Your task to perform on an android device: Empty the shopping cart on amazon. Image 0: 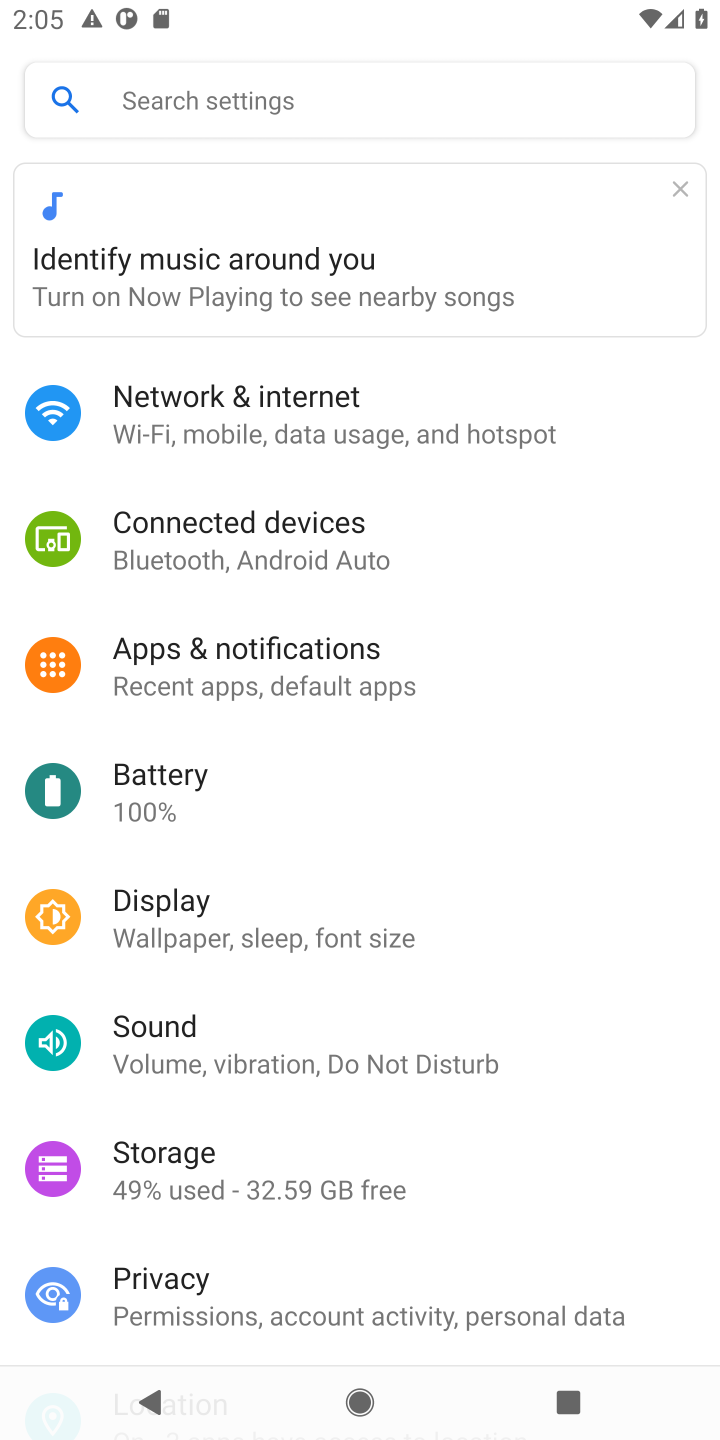
Step 0: press home button
Your task to perform on an android device: Empty the shopping cart on amazon. Image 1: 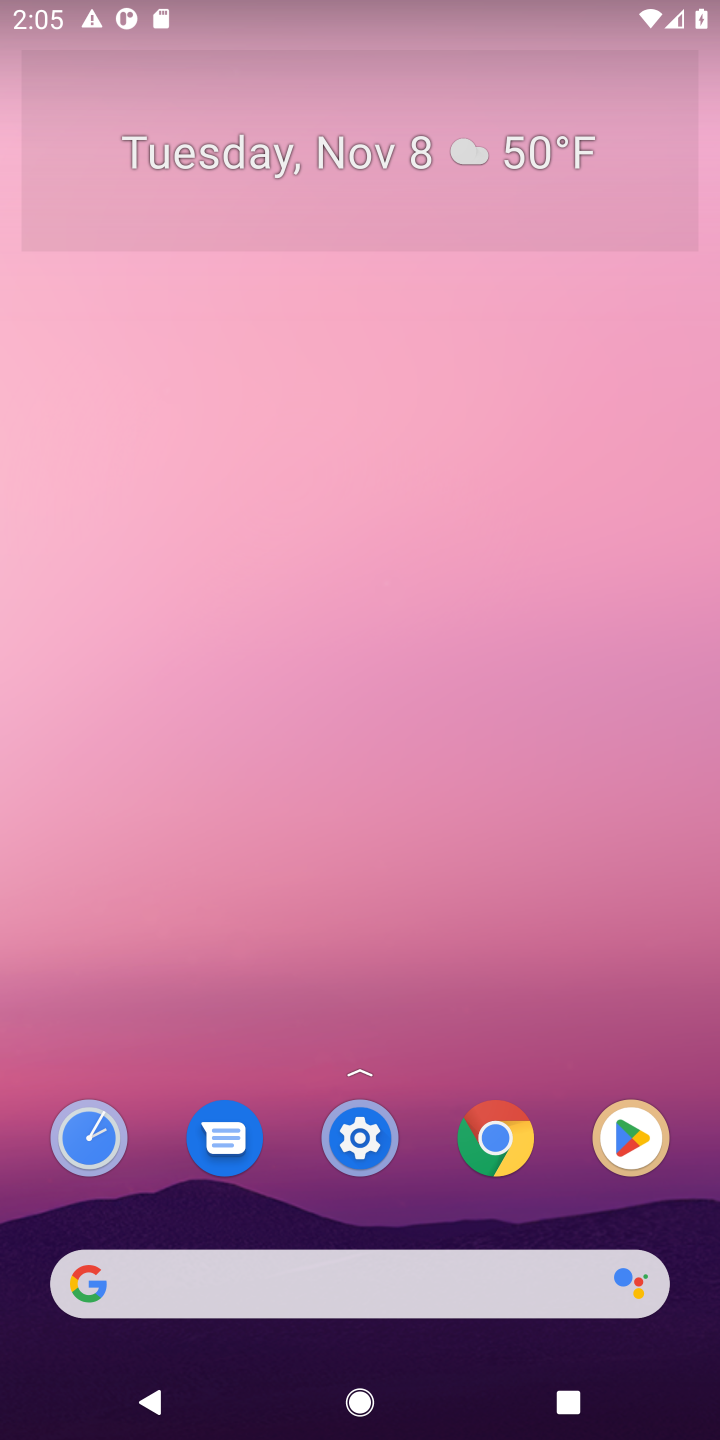
Step 1: click (290, 1274)
Your task to perform on an android device: Empty the shopping cart on amazon. Image 2: 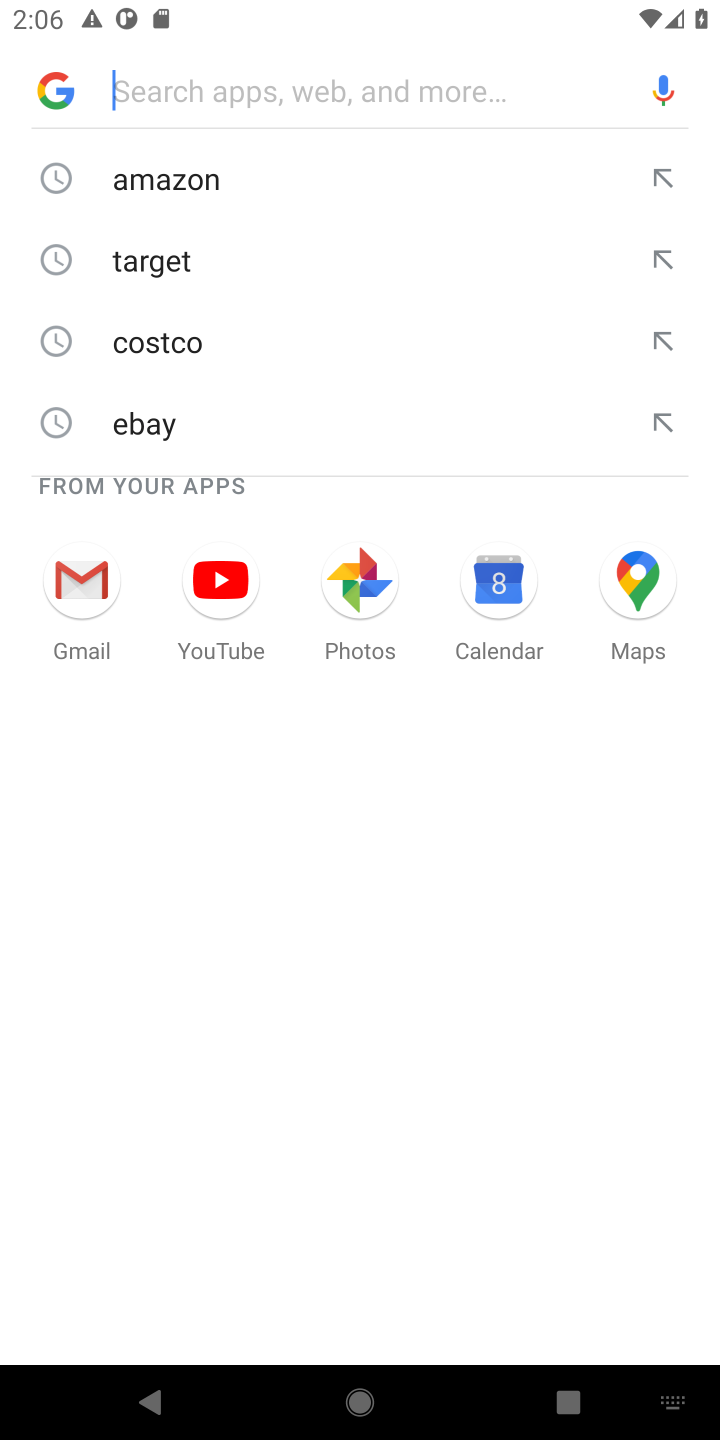
Step 2: type "amazon"
Your task to perform on an android device: Empty the shopping cart on amazon. Image 3: 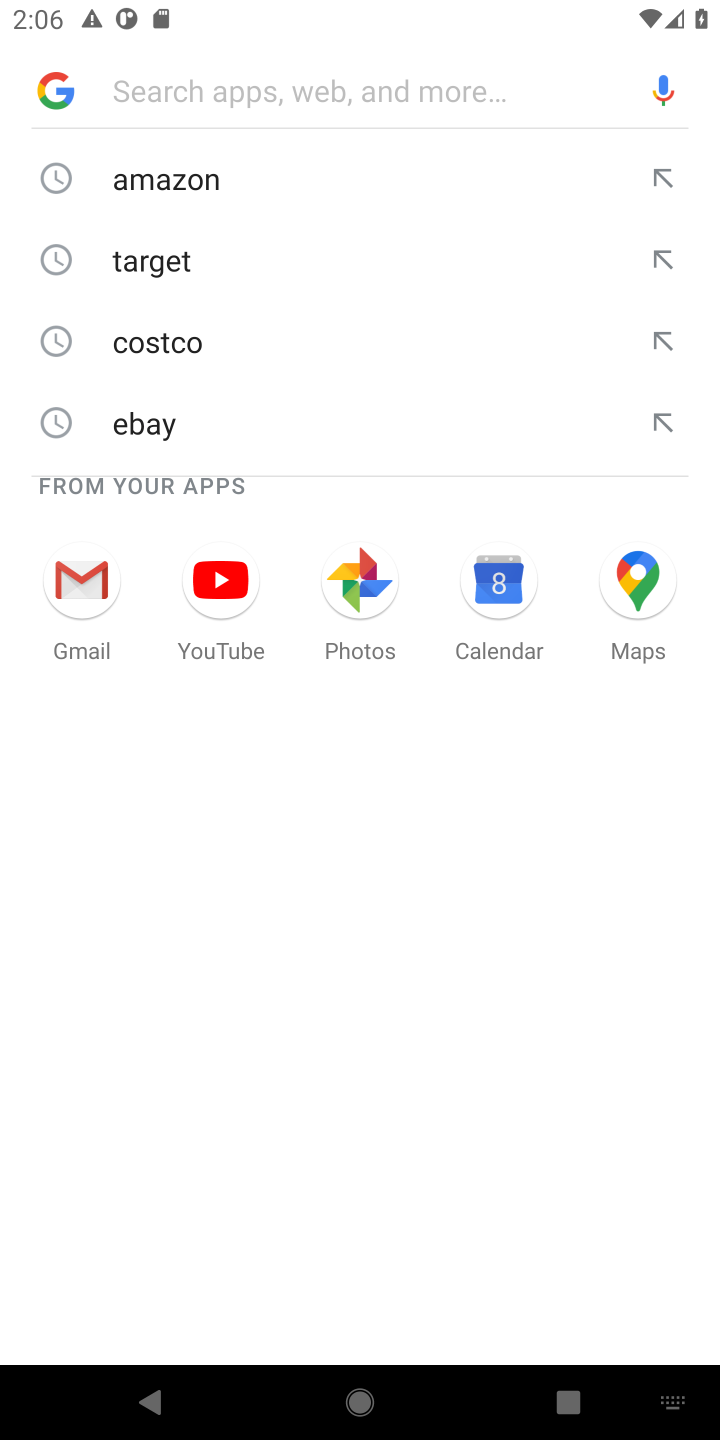
Step 3: click (303, 186)
Your task to perform on an android device: Empty the shopping cart on amazon. Image 4: 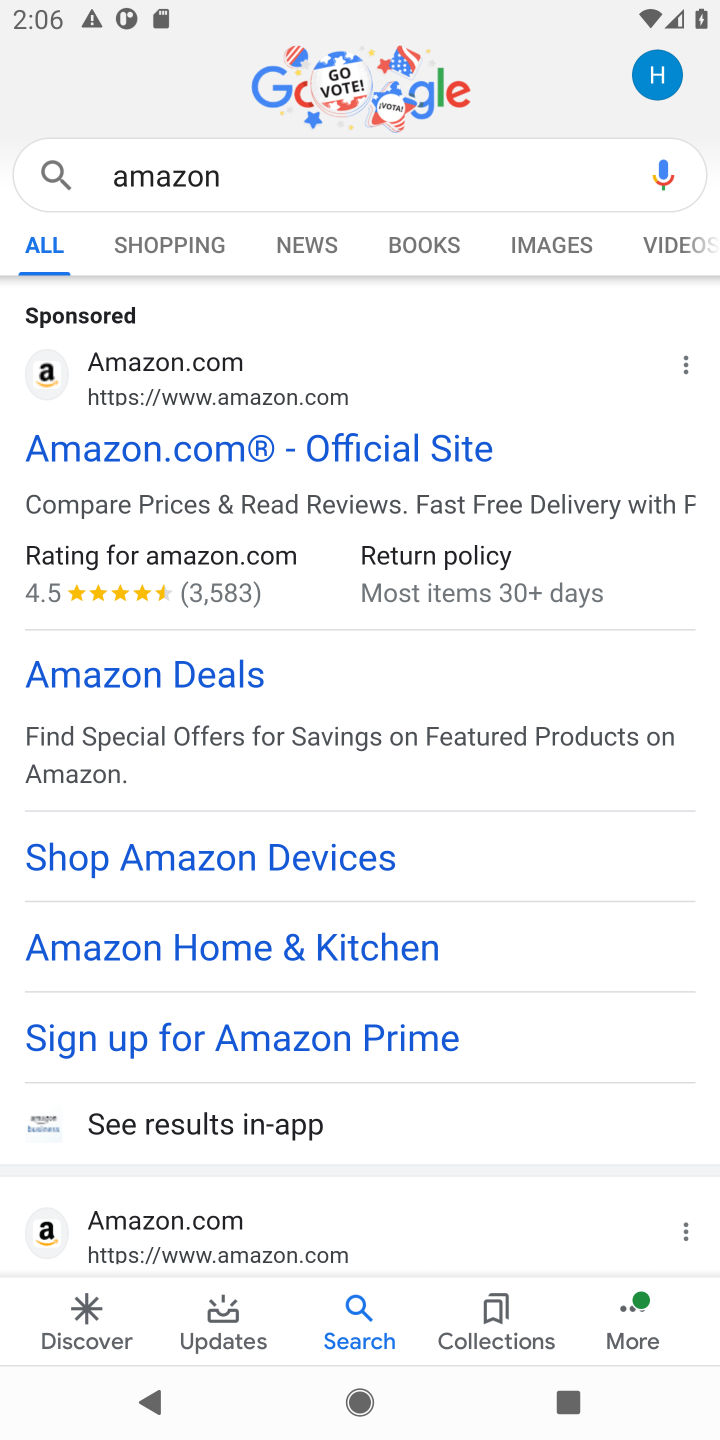
Step 4: click (325, 468)
Your task to perform on an android device: Empty the shopping cart on amazon. Image 5: 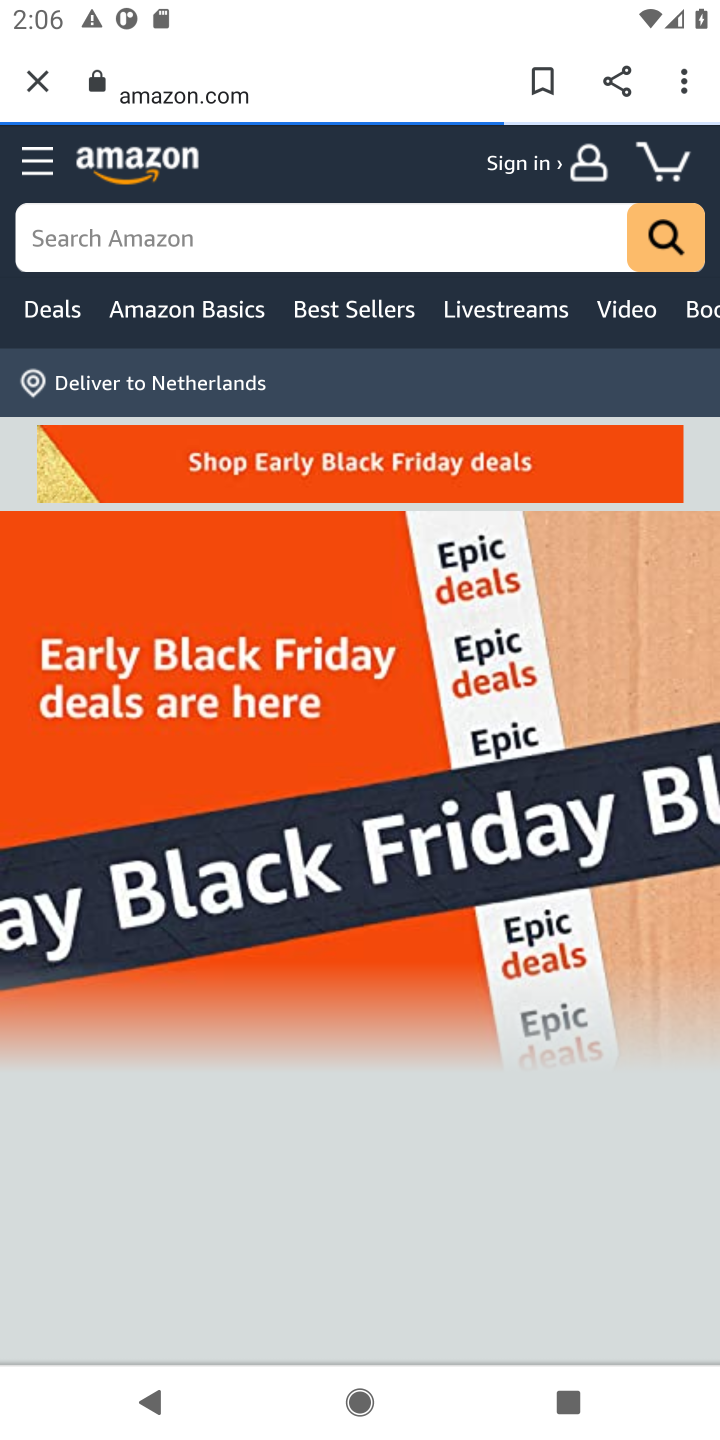
Step 5: task complete